Your task to perform on an android device: Open the phone app and click the voicemail tab. Image 0: 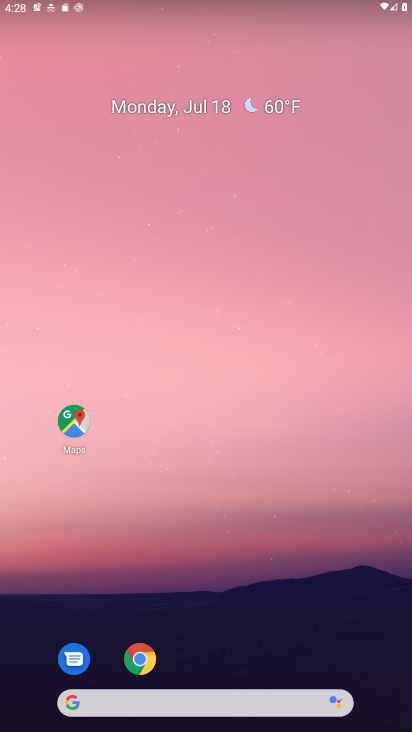
Step 0: drag from (212, 697) to (289, 0)
Your task to perform on an android device: Open the phone app and click the voicemail tab. Image 1: 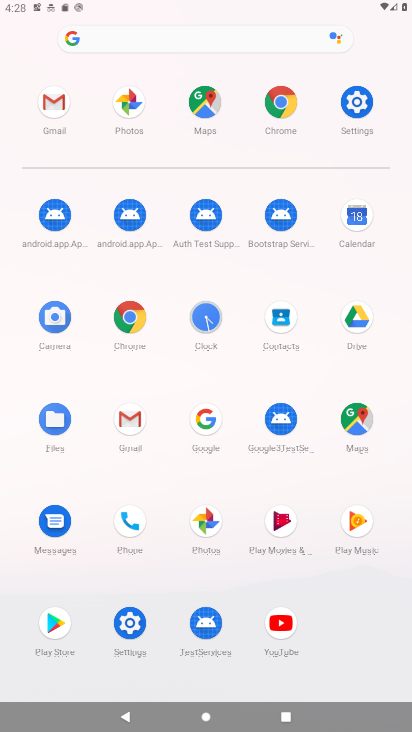
Step 1: click (125, 525)
Your task to perform on an android device: Open the phone app and click the voicemail tab. Image 2: 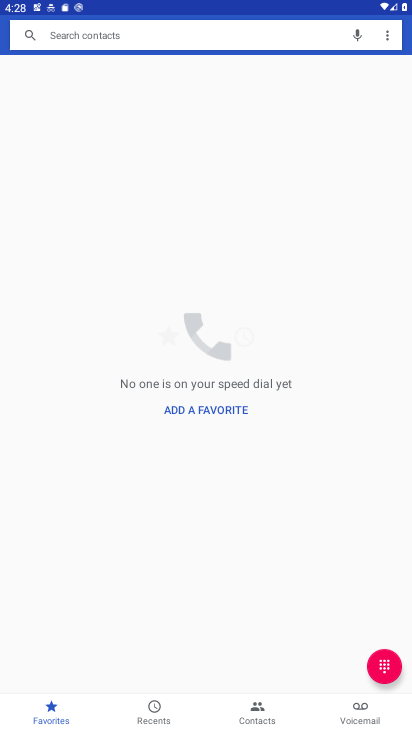
Step 2: click (349, 709)
Your task to perform on an android device: Open the phone app and click the voicemail tab. Image 3: 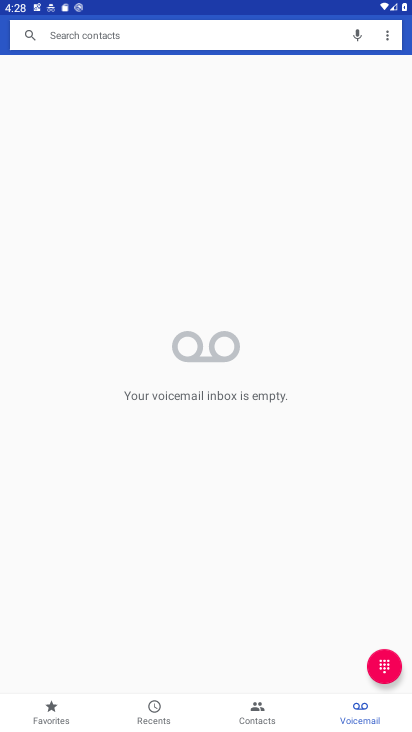
Step 3: task complete